Your task to perform on an android device: Search for Italian restaurants on Maps Image 0: 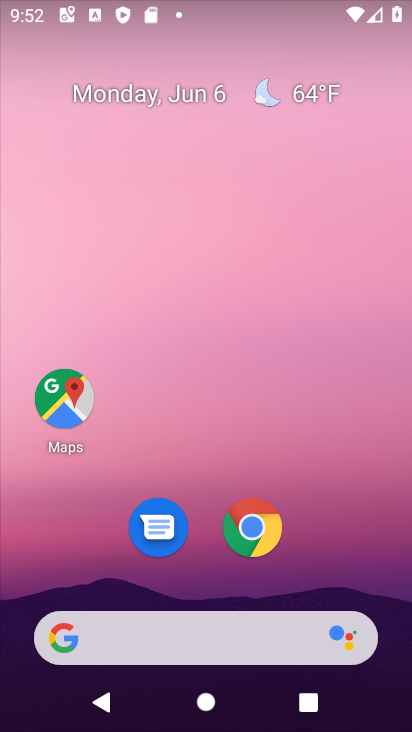
Step 0: drag from (154, 651) to (240, 186)
Your task to perform on an android device: Search for Italian restaurants on Maps Image 1: 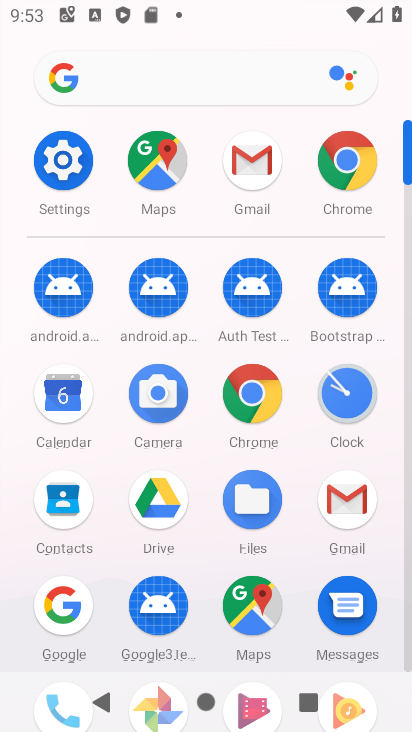
Step 1: click (235, 596)
Your task to perform on an android device: Search for Italian restaurants on Maps Image 2: 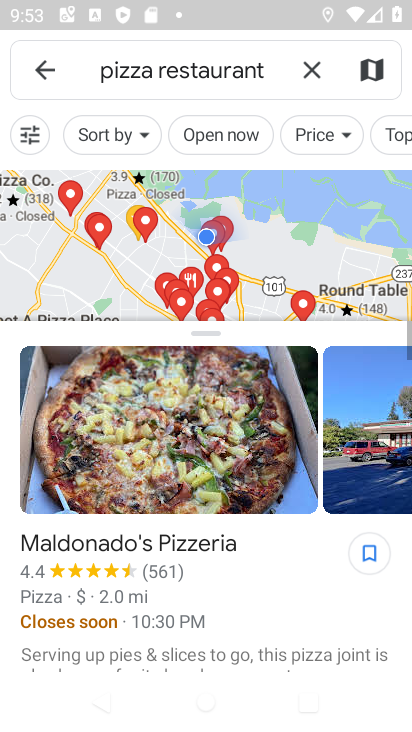
Step 2: click (314, 75)
Your task to perform on an android device: Search for Italian restaurants on Maps Image 3: 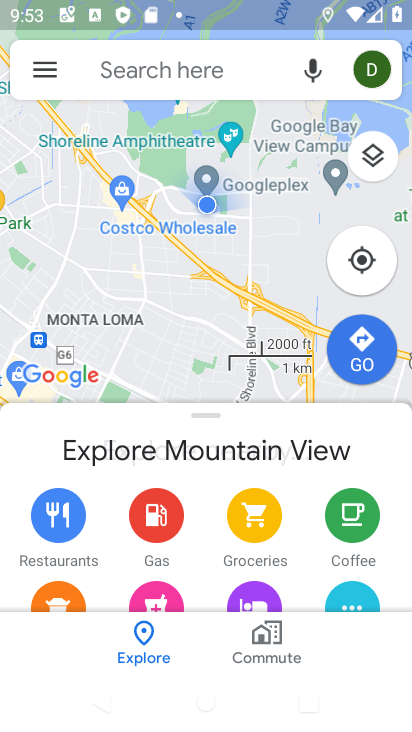
Step 3: click (204, 81)
Your task to perform on an android device: Search for Italian restaurants on Maps Image 4: 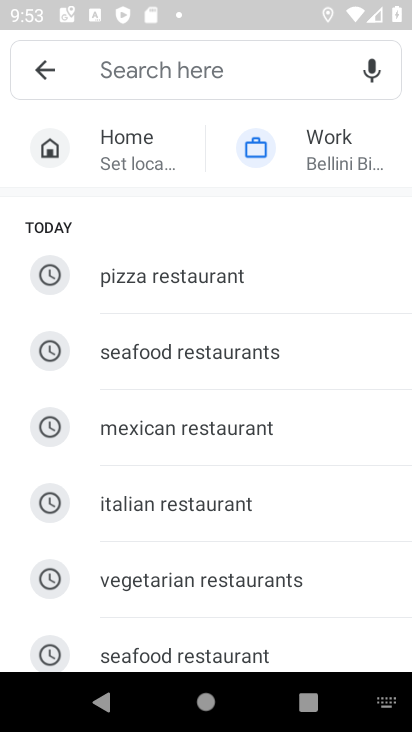
Step 4: click (189, 504)
Your task to perform on an android device: Search for Italian restaurants on Maps Image 5: 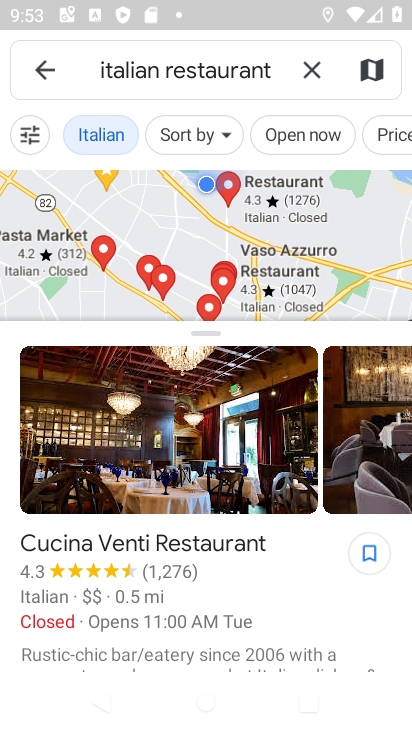
Step 5: task complete